Your task to perform on an android device: Search for pizza restaurants on Maps Image 0: 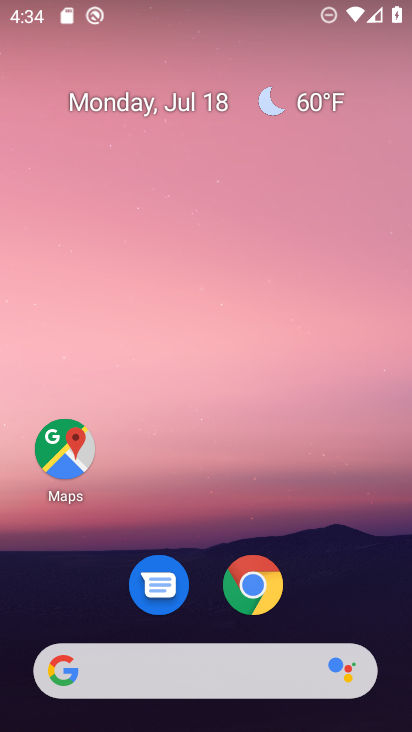
Step 0: click (82, 455)
Your task to perform on an android device: Search for pizza restaurants on Maps Image 1: 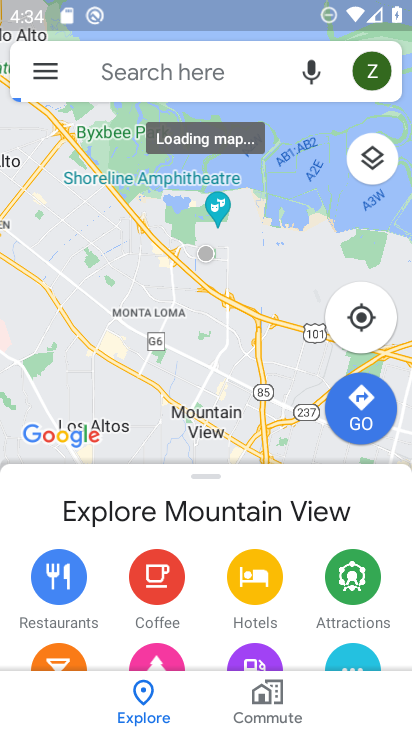
Step 1: click (206, 67)
Your task to perform on an android device: Search for pizza restaurants on Maps Image 2: 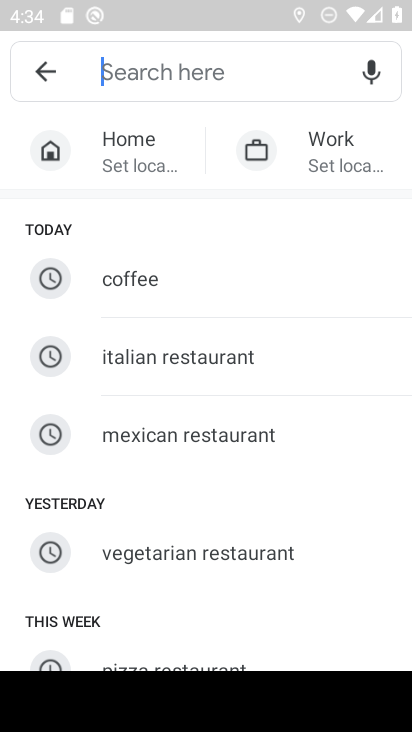
Step 2: drag from (217, 544) to (301, 253)
Your task to perform on an android device: Search for pizza restaurants on Maps Image 3: 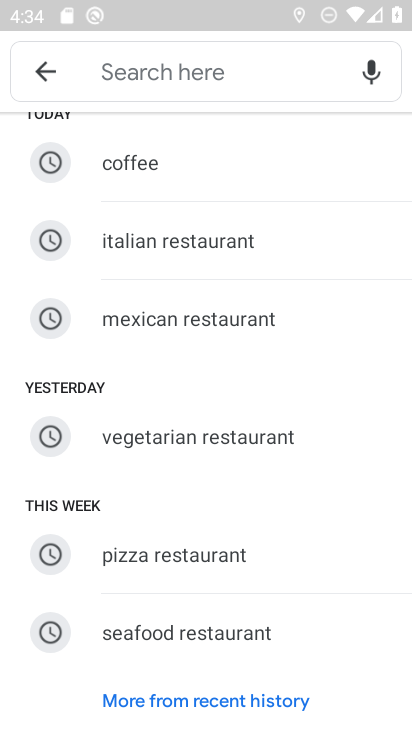
Step 3: click (212, 554)
Your task to perform on an android device: Search for pizza restaurants on Maps Image 4: 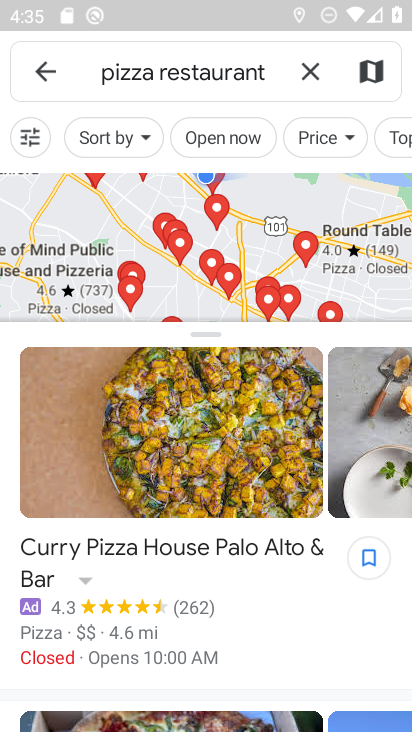
Step 4: task complete